Your task to perform on an android device: Search for vegetarian restaurants on Maps Image 0: 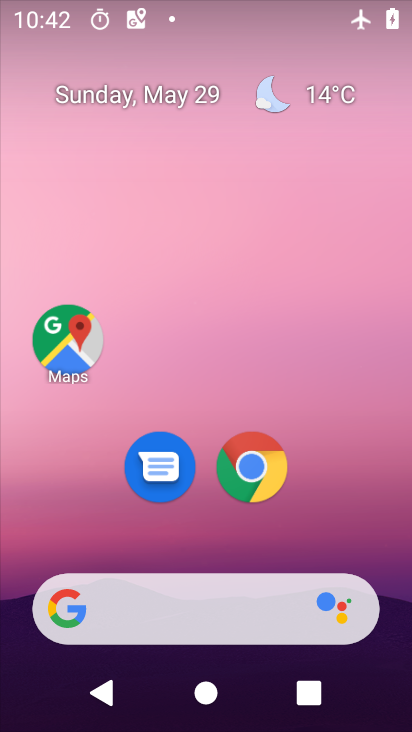
Step 0: click (49, 351)
Your task to perform on an android device: Search for vegetarian restaurants on Maps Image 1: 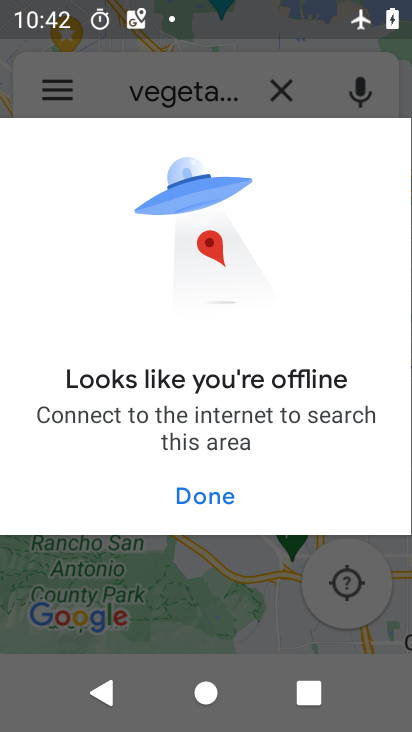
Step 1: task complete